Your task to perform on an android device: What's the weather going to be this weekend? Image 0: 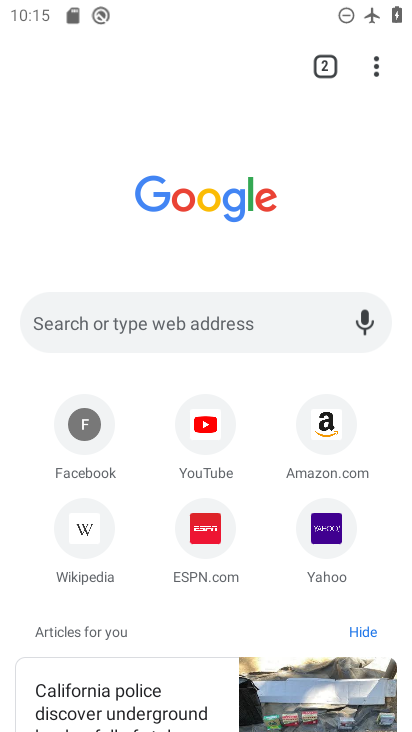
Step 0: press home button
Your task to perform on an android device: What's the weather going to be this weekend? Image 1: 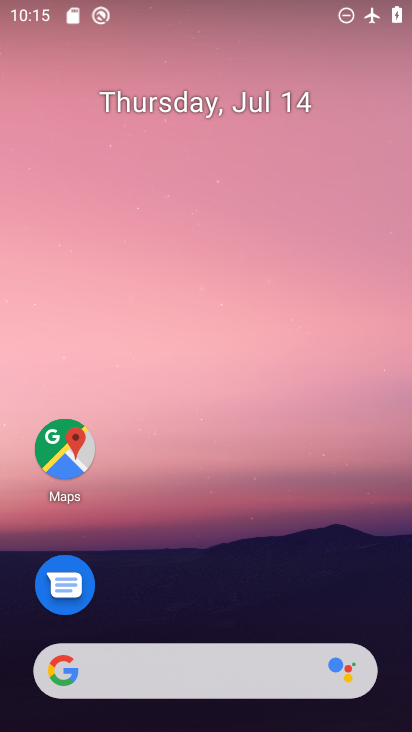
Step 1: click (194, 663)
Your task to perform on an android device: What's the weather going to be this weekend? Image 2: 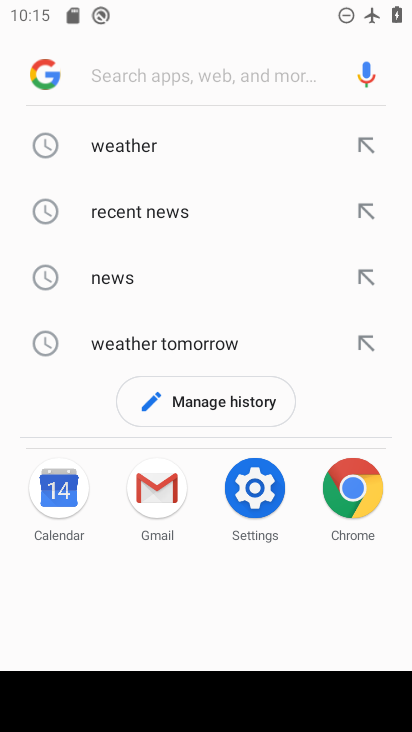
Step 2: click (121, 158)
Your task to perform on an android device: What's the weather going to be this weekend? Image 3: 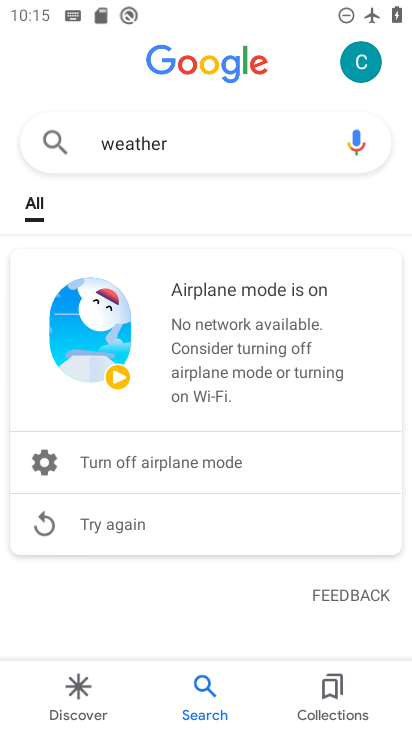
Step 3: task complete